Your task to perform on an android device: Go to location settings Image 0: 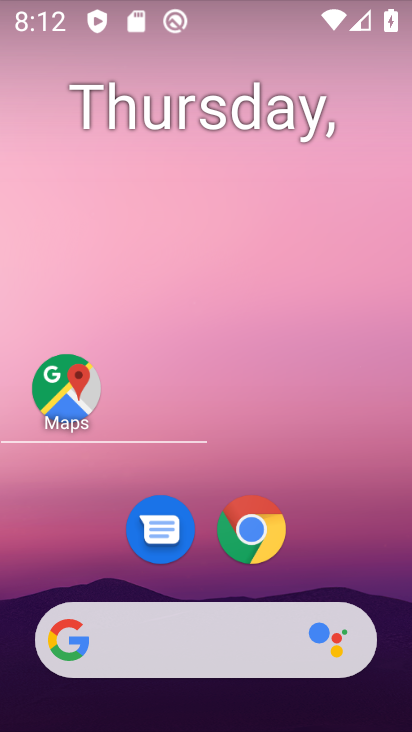
Step 0: press home button
Your task to perform on an android device: Go to location settings Image 1: 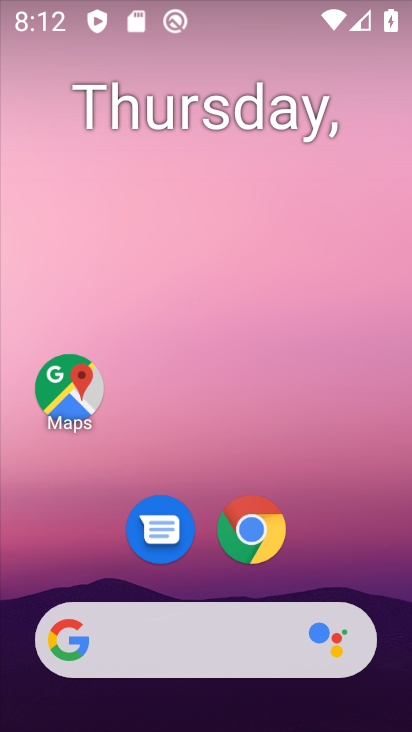
Step 1: drag from (212, 586) to (203, 30)
Your task to perform on an android device: Go to location settings Image 2: 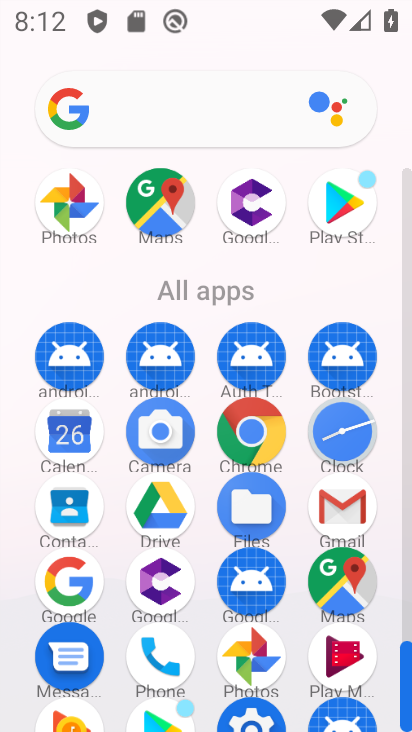
Step 2: drag from (206, 624) to (209, 154)
Your task to perform on an android device: Go to location settings Image 3: 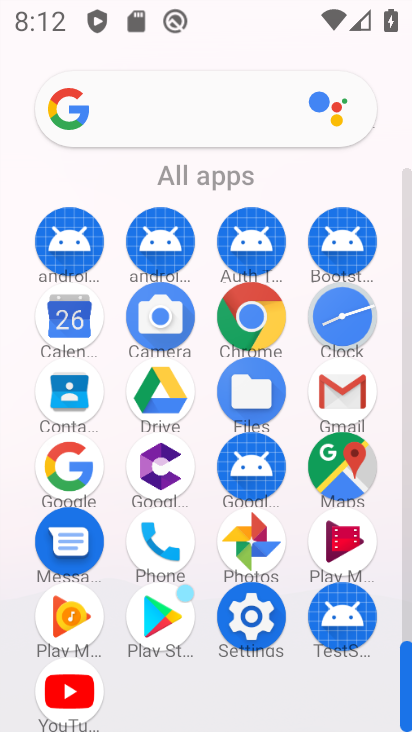
Step 3: click (251, 609)
Your task to perform on an android device: Go to location settings Image 4: 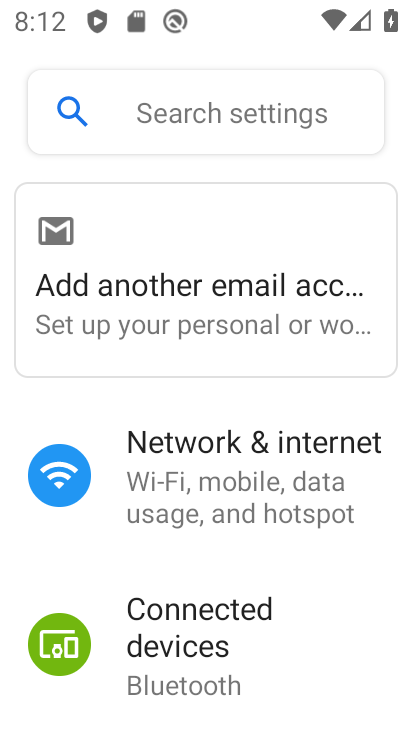
Step 4: drag from (287, 680) to (301, 141)
Your task to perform on an android device: Go to location settings Image 5: 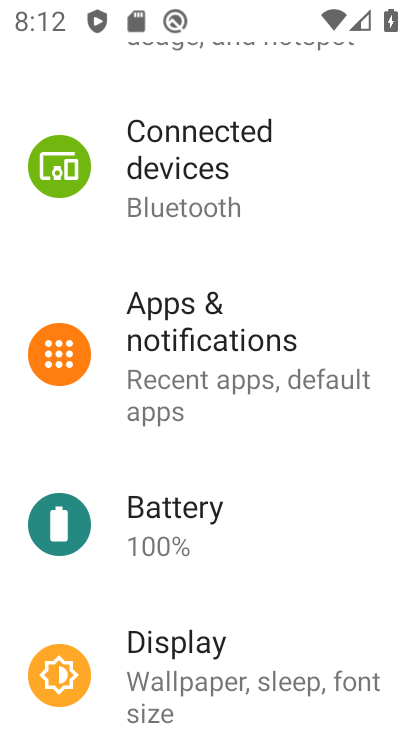
Step 5: drag from (241, 629) to (252, 89)
Your task to perform on an android device: Go to location settings Image 6: 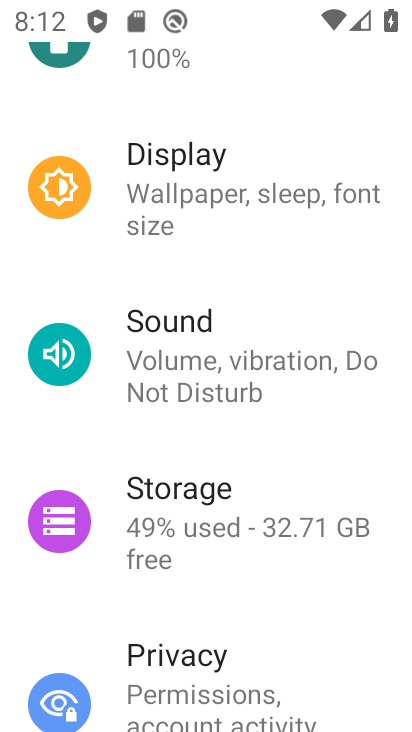
Step 6: drag from (230, 625) to (255, 131)
Your task to perform on an android device: Go to location settings Image 7: 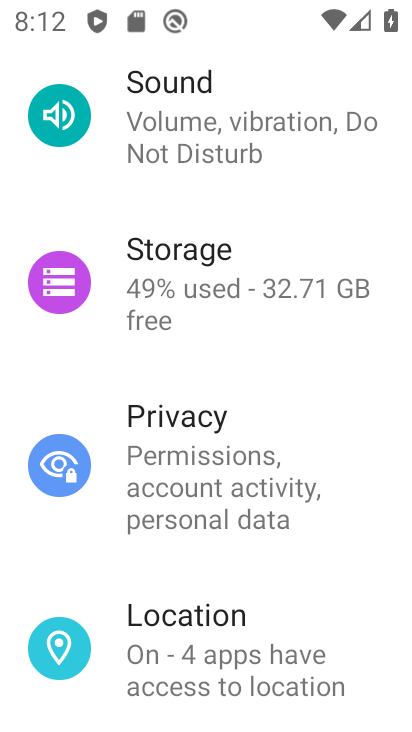
Step 7: click (263, 637)
Your task to perform on an android device: Go to location settings Image 8: 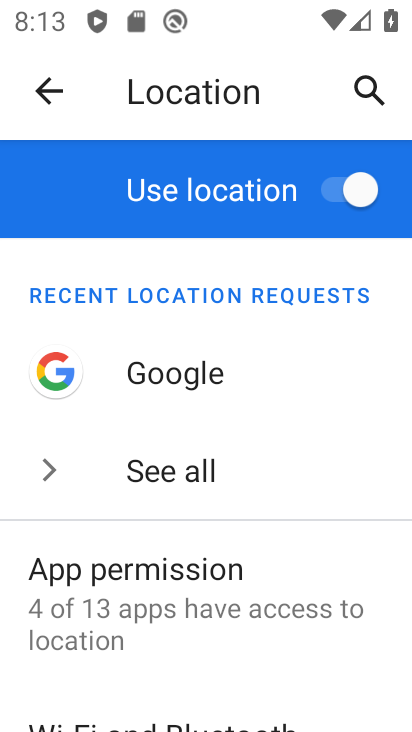
Step 8: drag from (215, 649) to (215, 366)
Your task to perform on an android device: Go to location settings Image 9: 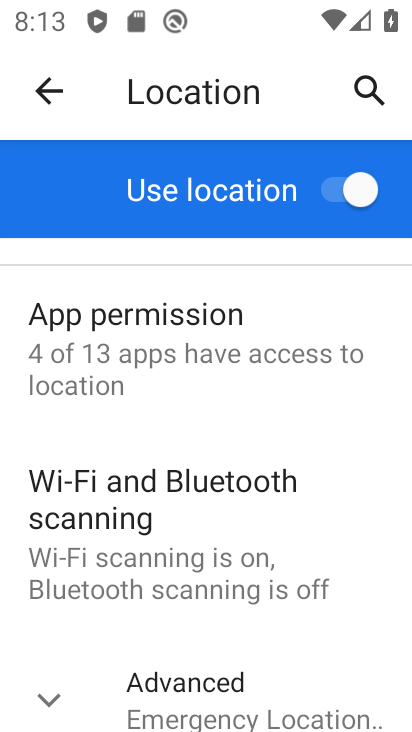
Step 9: click (81, 702)
Your task to perform on an android device: Go to location settings Image 10: 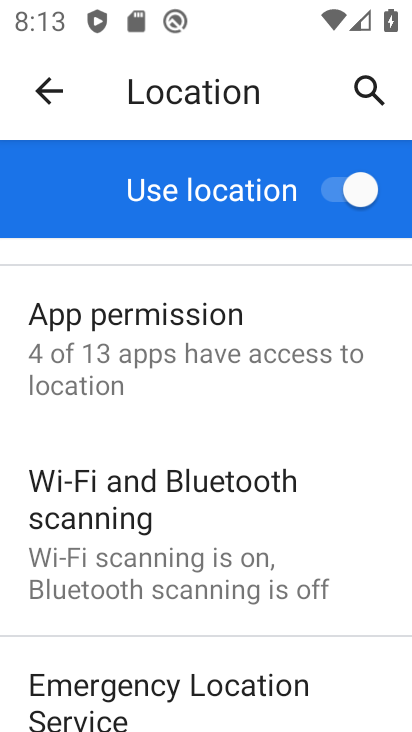
Step 10: task complete